Your task to perform on an android device: Go to Google Image 0: 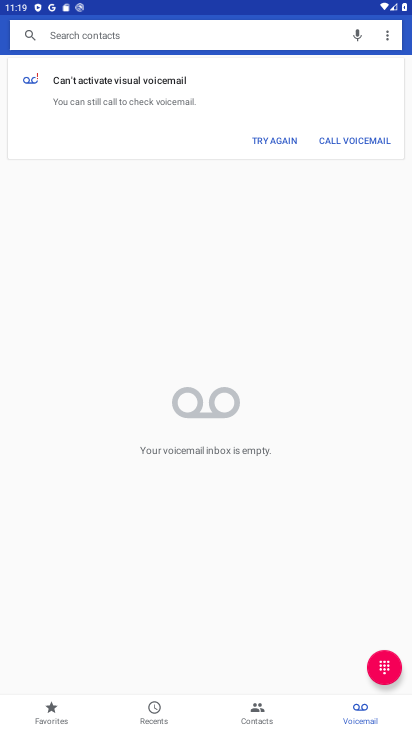
Step 0: press home button
Your task to perform on an android device: Go to Google Image 1: 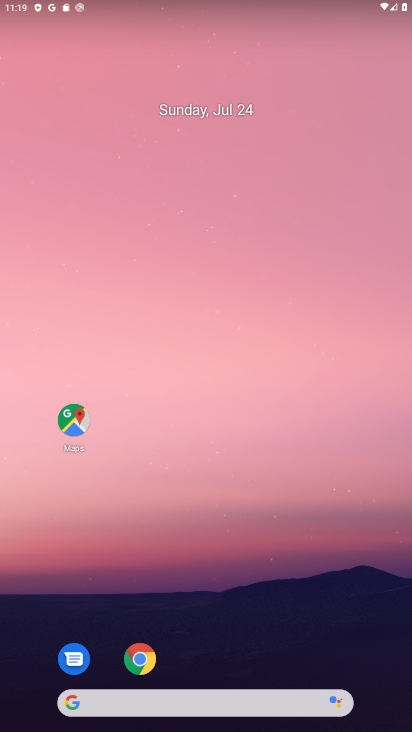
Step 1: drag from (133, 619) to (272, 63)
Your task to perform on an android device: Go to Google Image 2: 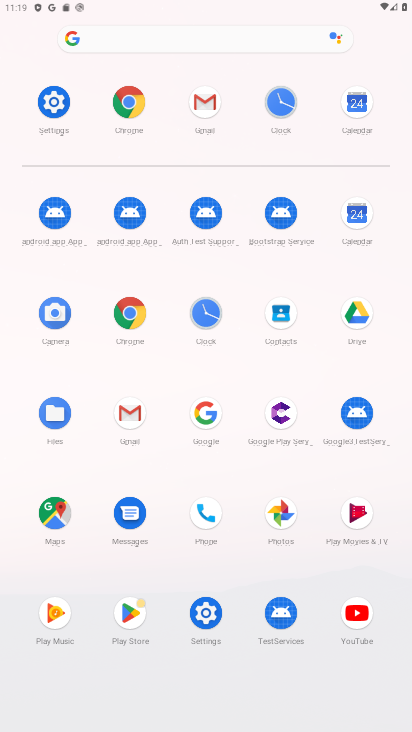
Step 2: click (202, 395)
Your task to perform on an android device: Go to Google Image 3: 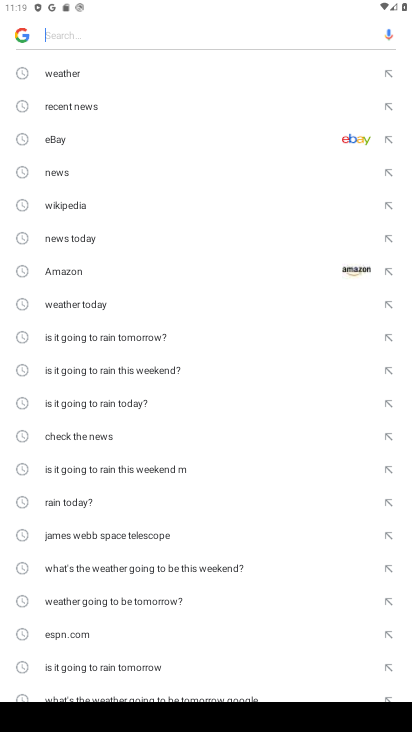
Step 3: task complete